Your task to perform on an android device: Go to eBay Image 0: 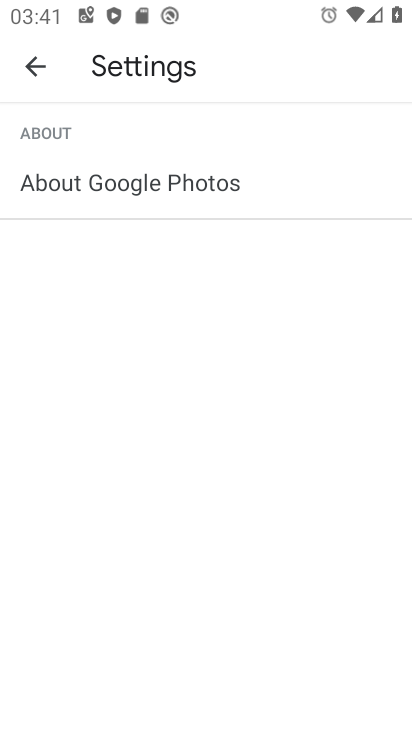
Step 0: press home button
Your task to perform on an android device: Go to eBay Image 1: 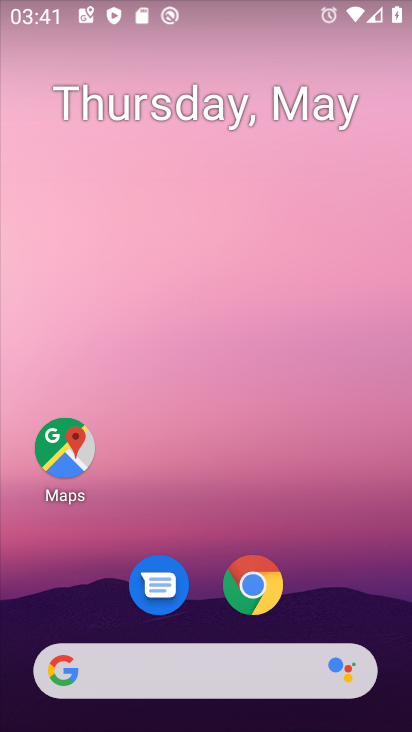
Step 1: click (260, 682)
Your task to perform on an android device: Go to eBay Image 2: 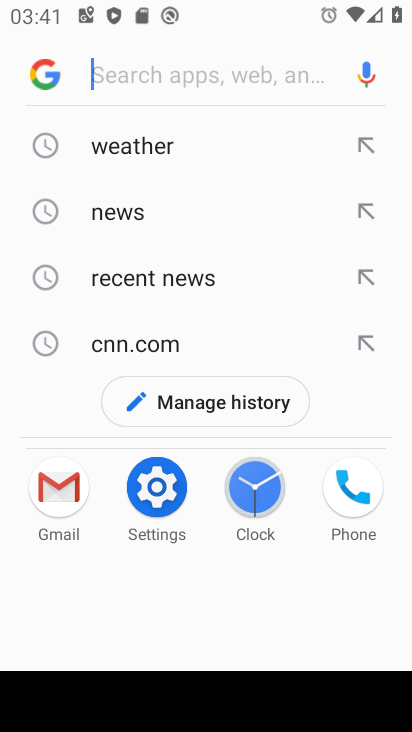
Step 2: type "ebay"
Your task to perform on an android device: Go to eBay Image 3: 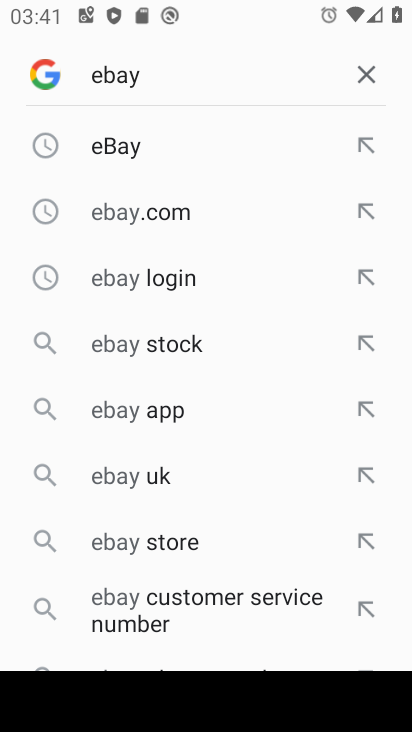
Step 3: click (120, 146)
Your task to perform on an android device: Go to eBay Image 4: 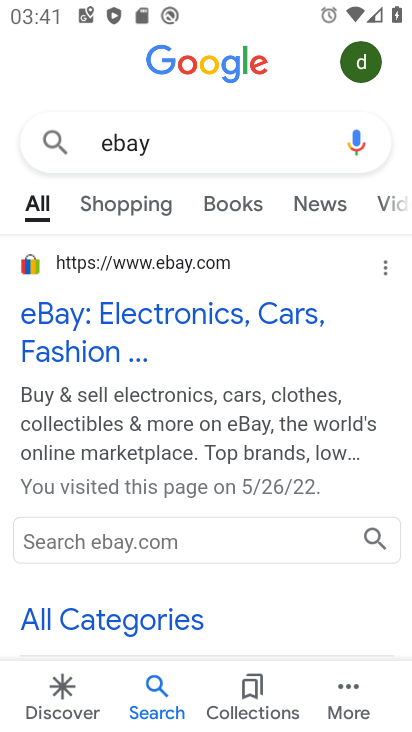
Step 4: click (65, 315)
Your task to perform on an android device: Go to eBay Image 5: 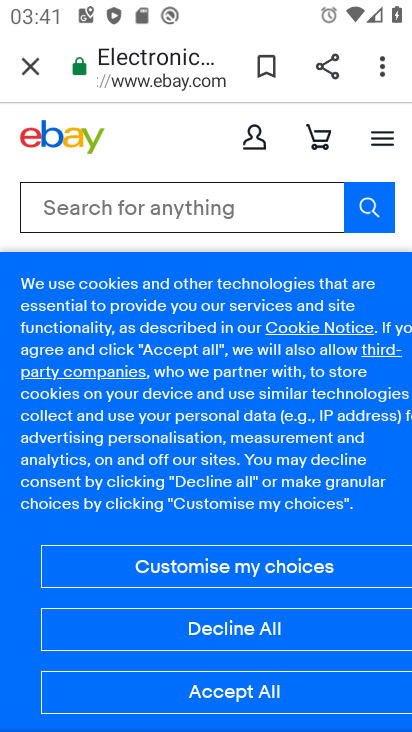
Step 5: task complete